Your task to perform on an android device: Open Maps and search for coffee Image 0: 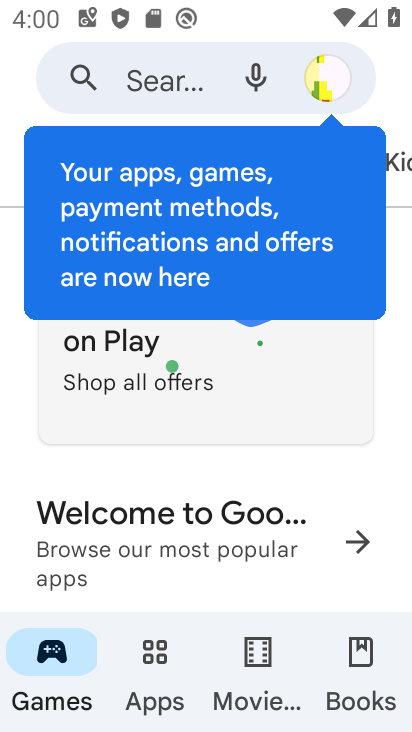
Step 0: press home button
Your task to perform on an android device: Open Maps and search for coffee Image 1: 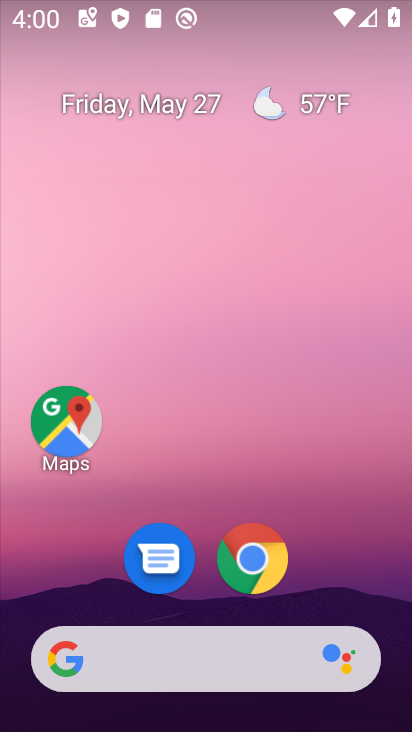
Step 1: click (58, 417)
Your task to perform on an android device: Open Maps and search for coffee Image 2: 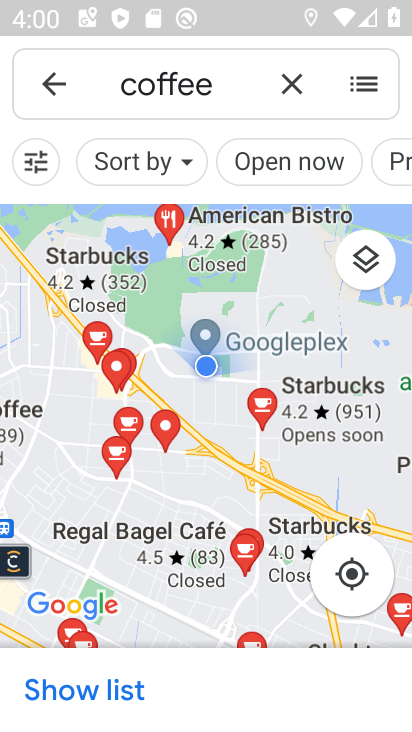
Step 2: task complete